Your task to perform on an android device: toggle notifications settings in the gmail app Image 0: 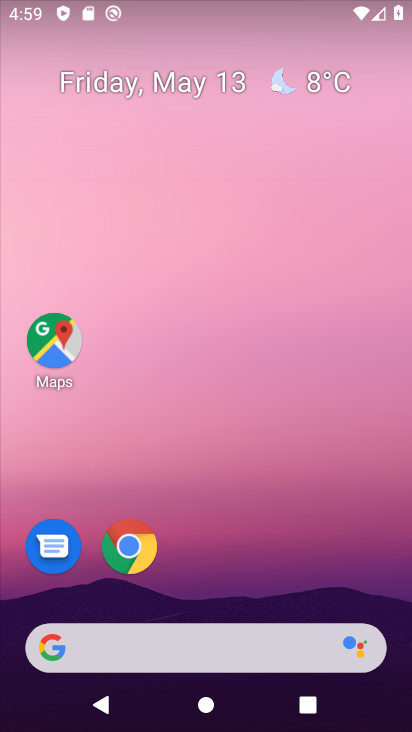
Step 0: drag from (181, 562) to (285, 171)
Your task to perform on an android device: toggle notifications settings in the gmail app Image 1: 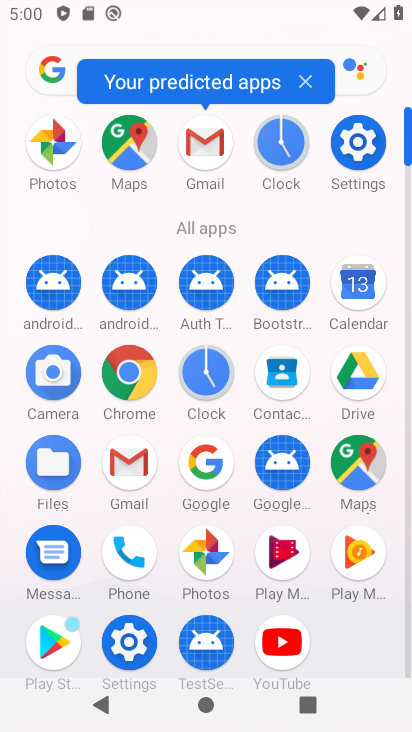
Step 1: click (131, 460)
Your task to perform on an android device: toggle notifications settings in the gmail app Image 2: 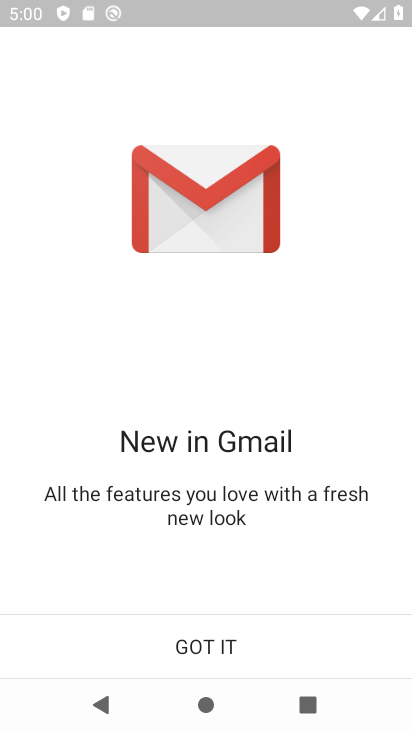
Step 2: click (181, 656)
Your task to perform on an android device: toggle notifications settings in the gmail app Image 3: 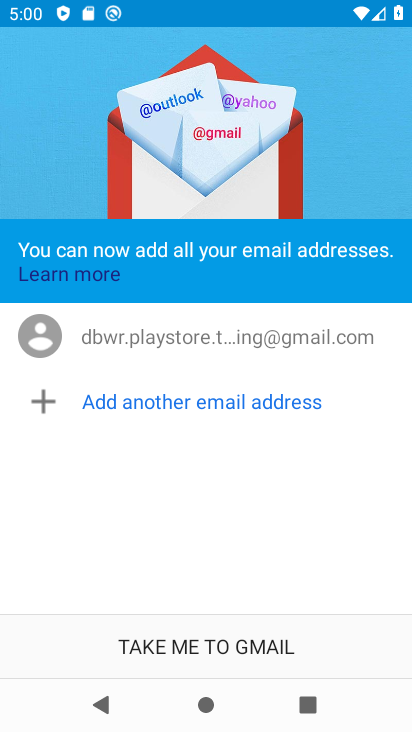
Step 3: click (222, 639)
Your task to perform on an android device: toggle notifications settings in the gmail app Image 4: 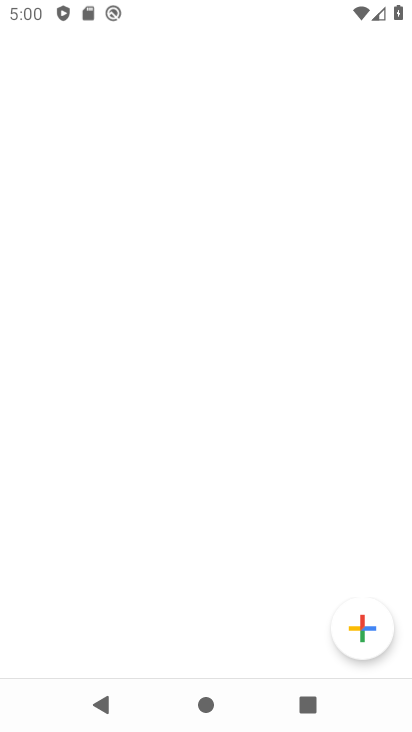
Step 4: click (223, 639)
Your task to perform on an android device: toggle notifications settings in the gmail app Image 5: 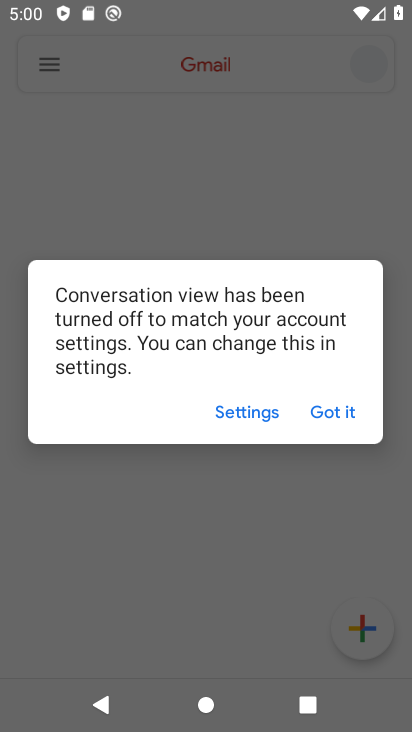
Step 5: click (352, 411)
Your task to perform on an android device: toggle notifications settings in the gmail app Image 6: 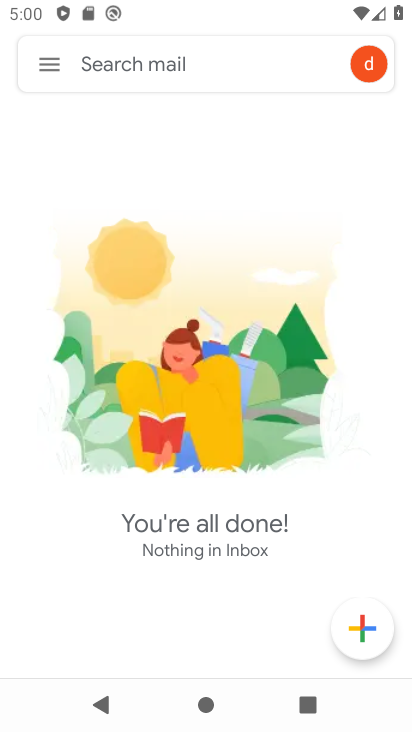
Step 6: click (38, 49)
Your task to perform on an android device: toggle notifications settings in the gmail app Image 7: 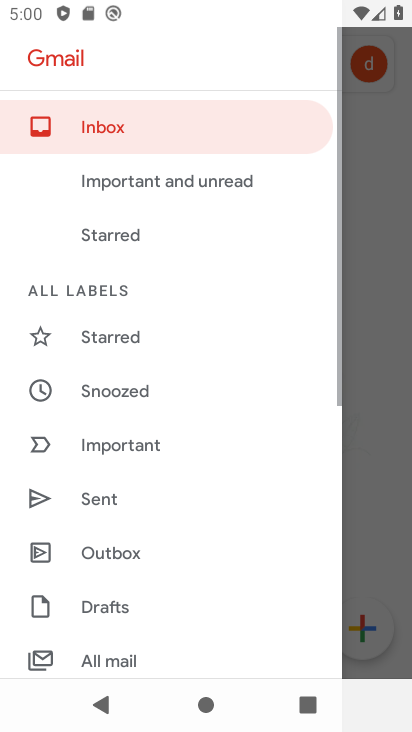
Step 7: drag from (141, 594) to (253, 221)
Your task to perform on an android device: toggle notifications settings in the gmail app Image 8: 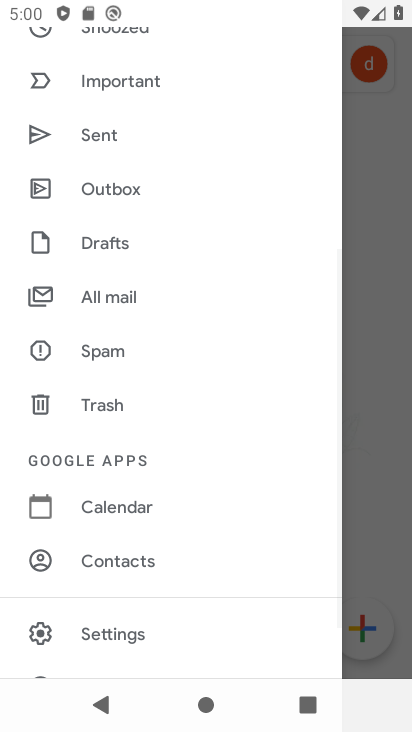
Step 8: click (173, 634)
Your task to perform on an android device: toggle notifications settings in the gmail app Image 9: 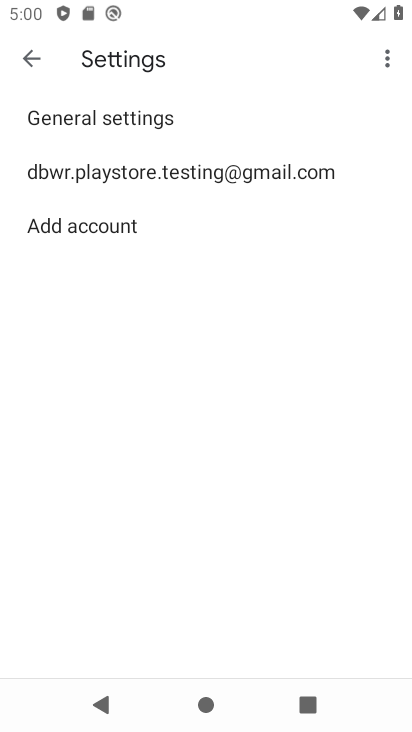
Step 9: click (247, 152)
Your task to perform on an android device: toggle notifications settings in the gmail app Image 10: 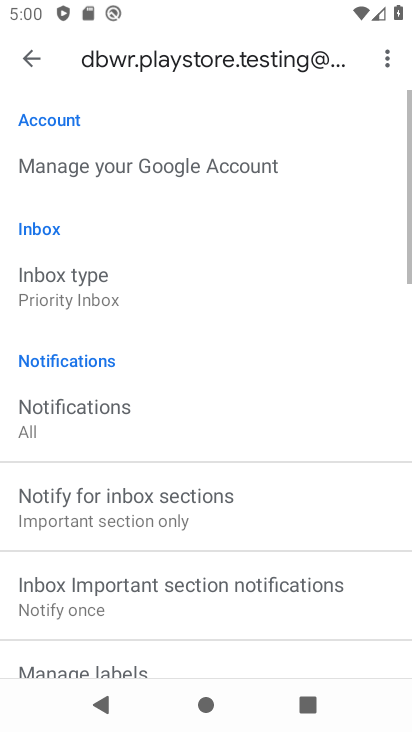
Step 10: drag from (203, 624) to (376, 167)
Your task to perform on an android device: toggle notifications settings in the gmail app Image 11: 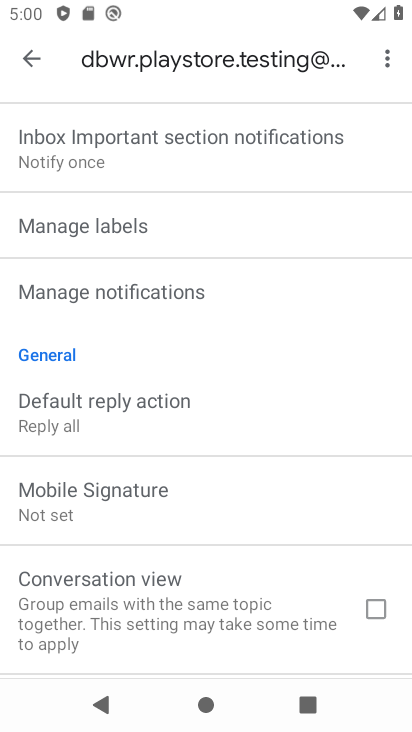
Step 11: click (218, 303)
Your task to perform on an android device: toggle notifications settings in the gmail app Image 12: 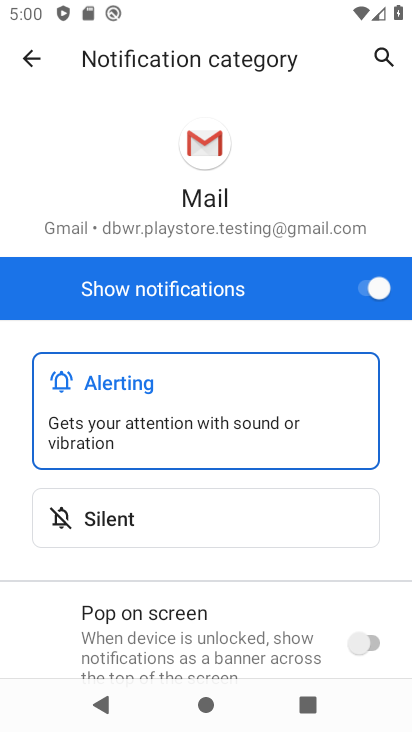
Step 12: click (363, 278)
Your task to perform on an android device: toggle notifications settings in the gmail app Image 13: 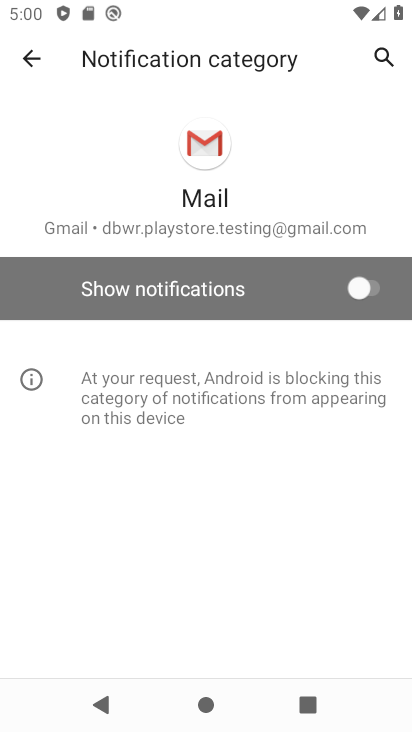
Step 13: task complete